Your task to perform on an android device: turn off notifications in google photos Image 0: 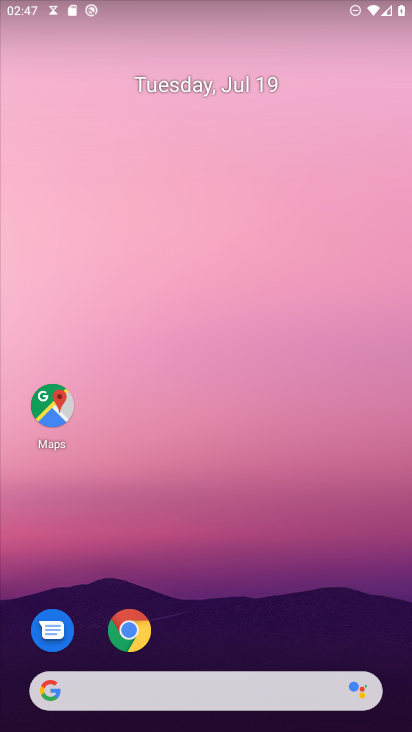
Step 0: press home button
Your task to perform on an android device: turn off notifications in google photos Image 1: 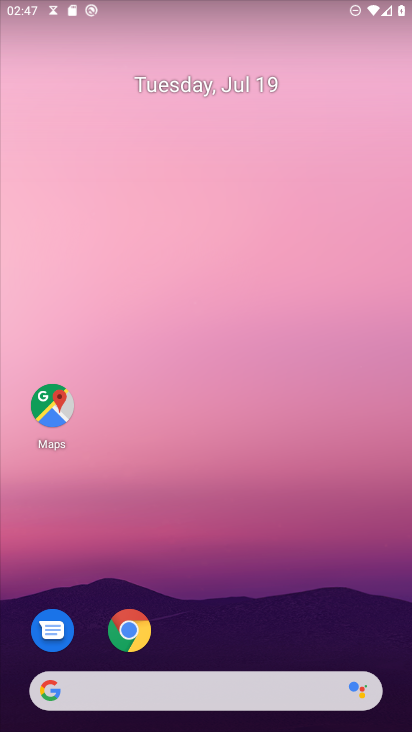
Step 1: drag from (160, 671) to (339, 190)
Your task to perform on an android device: turn off notifications in google photos Image 2: 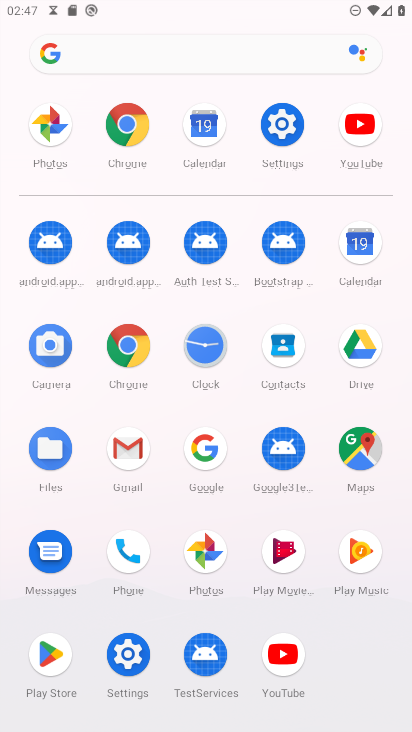
Step 2: click (213, 562)
Your task to perform on an android device: turn off notifications in google photos Image 3: 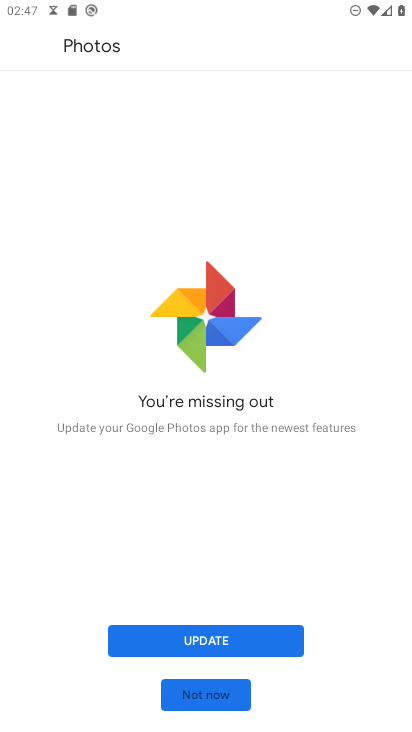
Step 3: click (214, 697)
Your task to perform on an android device: turn off notifications in google photos Image 4: 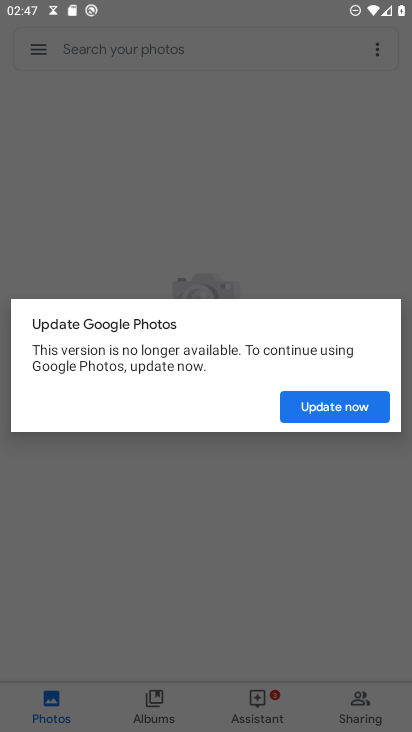
Step 4: click (316, 409)
Your task to perform on an android device: turn off notifications in google photos Image 5: 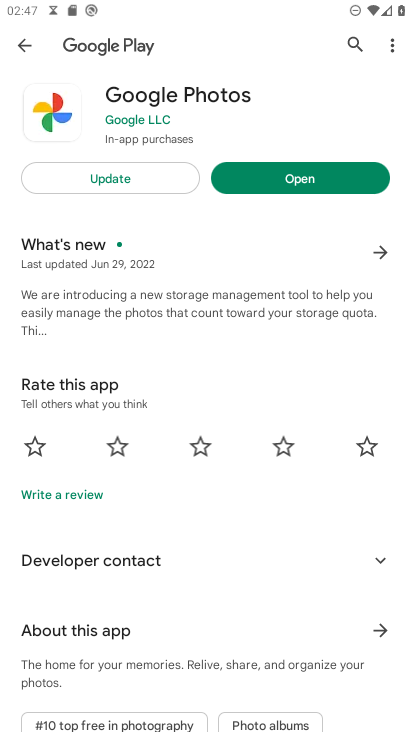
Step 5: click (290, 180)
Your task to perform on an android device: turn off notifications in google photos Image 6: 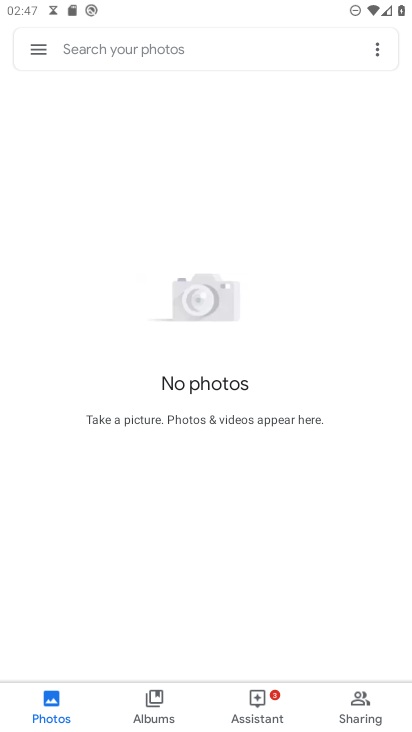
Step 6: click (35, 53)
Your task to perform on an android device: turn off notifications in google photos Image 7: 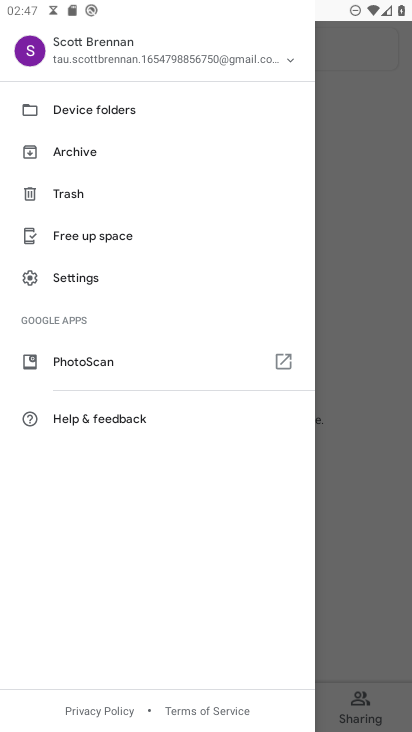
Step 7: click (73, 279)
Your task to perform on an android device: turn off notifications in google photos Image 8: 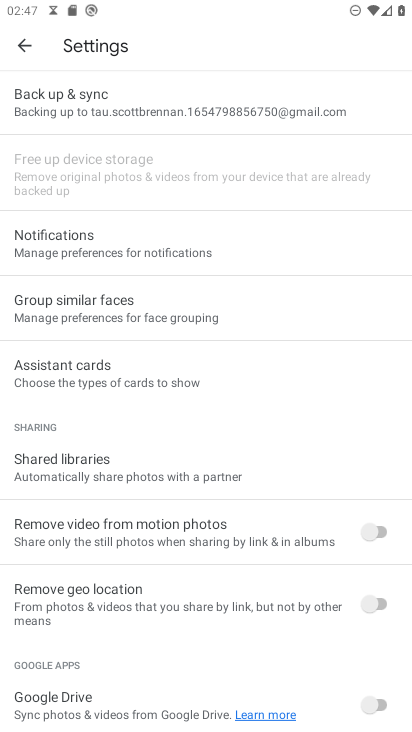
Step 8: click (78, 245)
Your task to perform on an android device: turn off notifications in google photos Image 9: 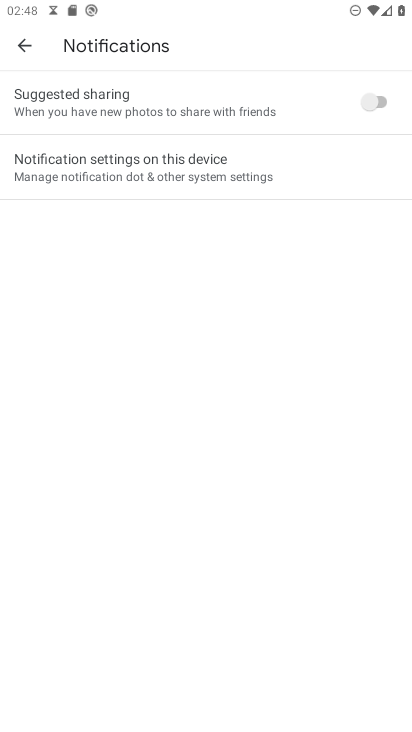
Step 9: click (151, 175)
Your task to perform on an android device: turn off notifications in google photos Image 10: 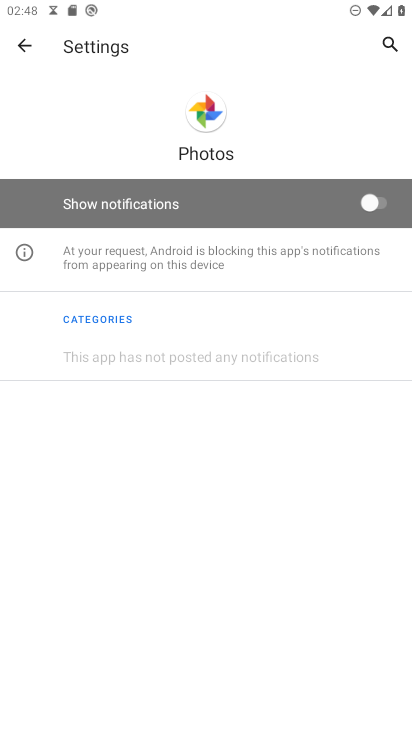
Step 10: task complete